Your task to perform on an android device: Go to privacy settings Image 0: 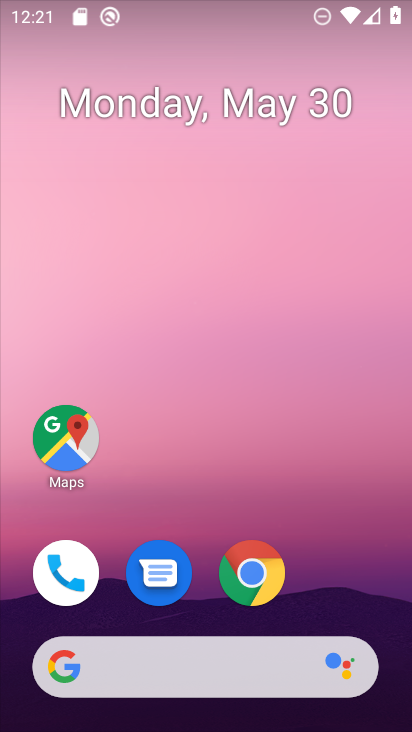
Step 0: press home button
Your task to perform on an android device: Go to privacy settings Image 1: 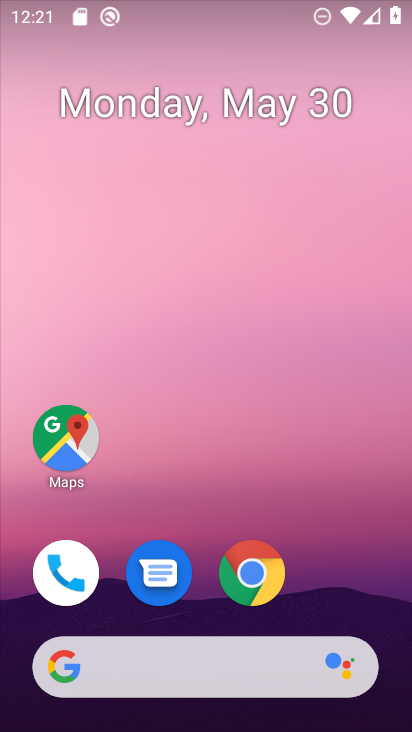
Step 1: drag from (338, 606) to (290, 140)
Your task to perform on an android device: Go to privacy settings Image 2: 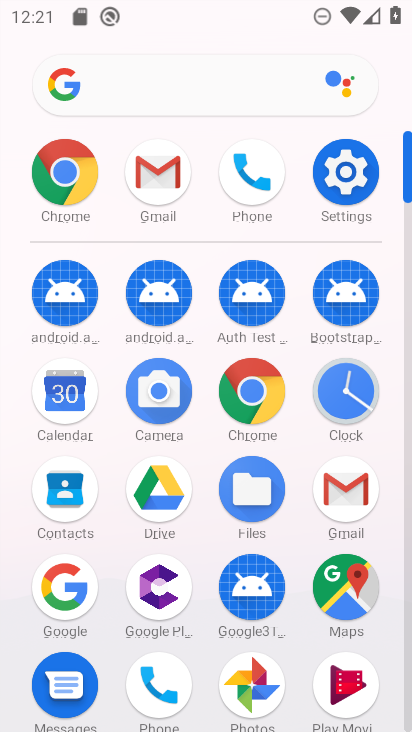
Step 2: click (361, 175)
Your task to perform on an android device: Go to privacy settings Image 3: 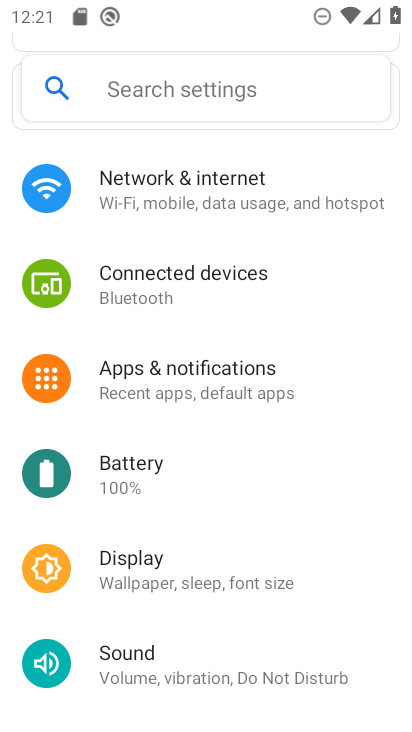
Step 3: drag from (290, 474) to (249, 94)
Your task to perform on an android device: Go to privacy settings Image 4: 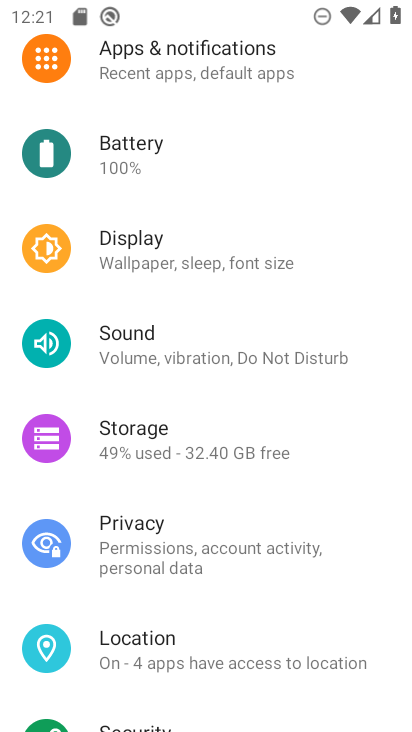
Step 4: click (137, 527)
Your task to perform on an android device: Go to privacy settings Image 5: 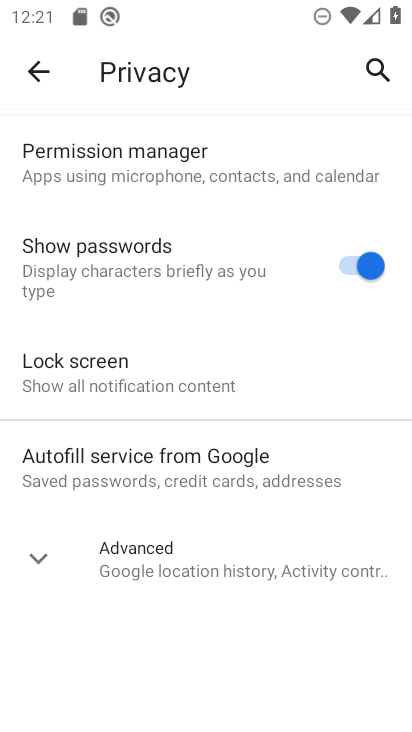
Step 5: task complete